Your task to perform on an android device: turn notification dots on Image 0: 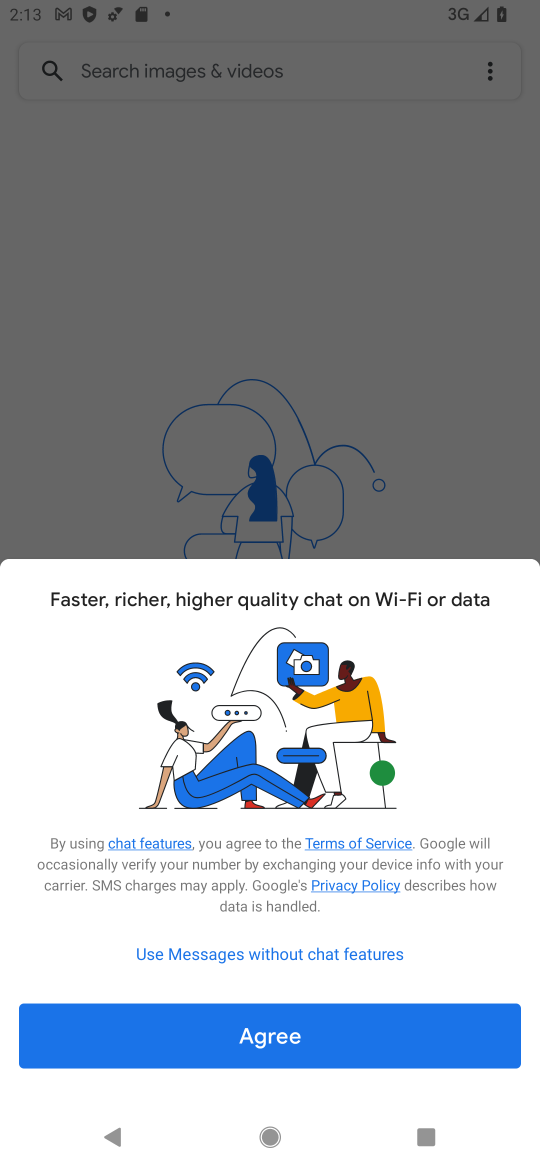
Step 0: press home button
Your task to perform on an android device: turn notification dots on Image 1: 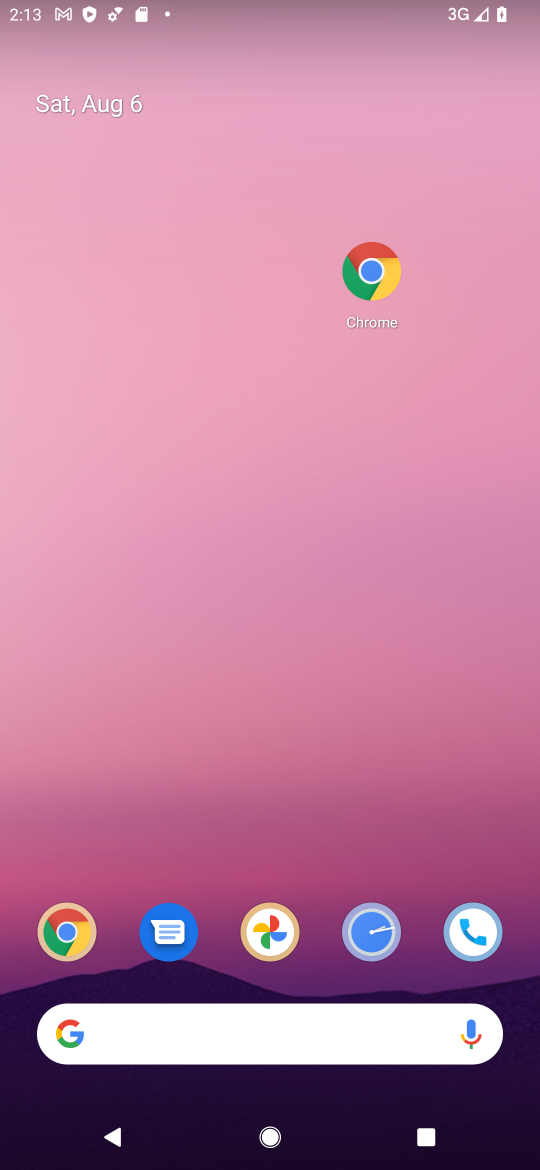
Step 1: drag from (285, 944) to (293, 78)
Your task to perform on an android device: turn notification dots on Image 2: 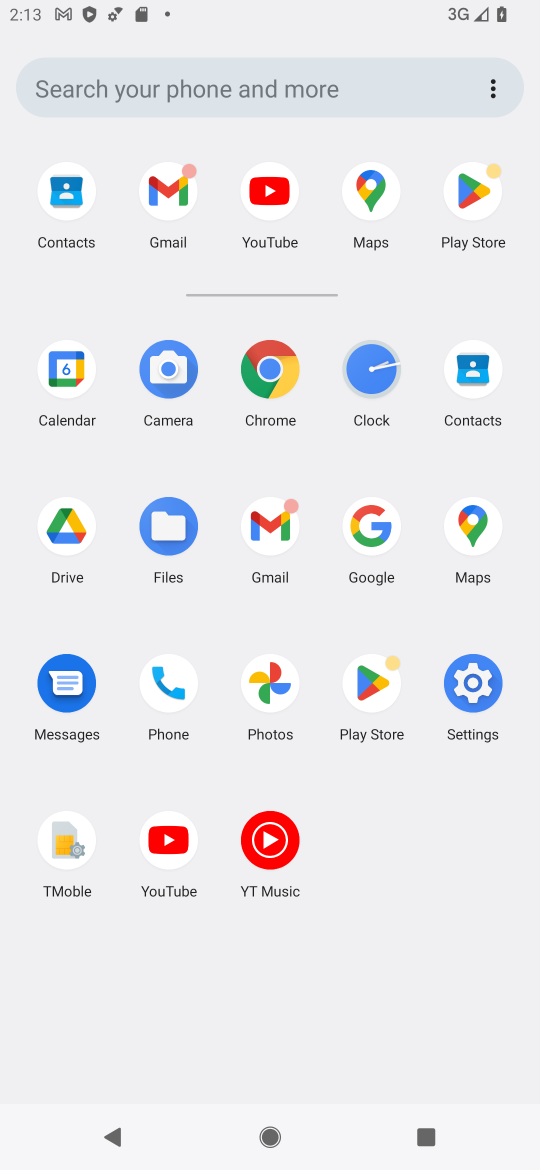
Step 2: click (478, 679)
Your task to perform on an android device: turn notification dots on Image 3: 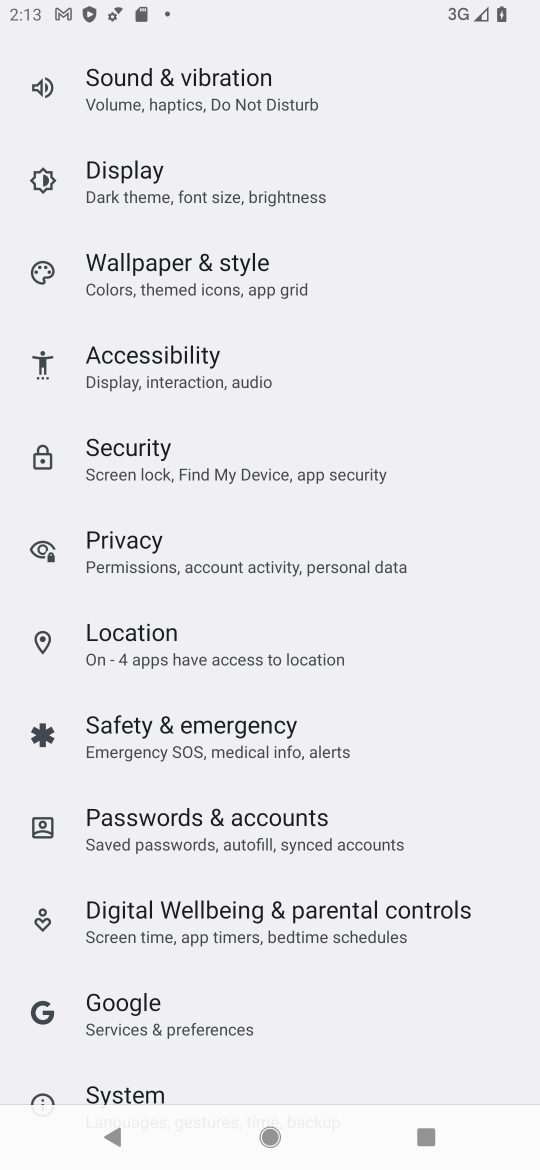
Step 3: drag from (334, 328) to (340, 771)
Your task to perform on an android device: turn notification dots on Image 4: 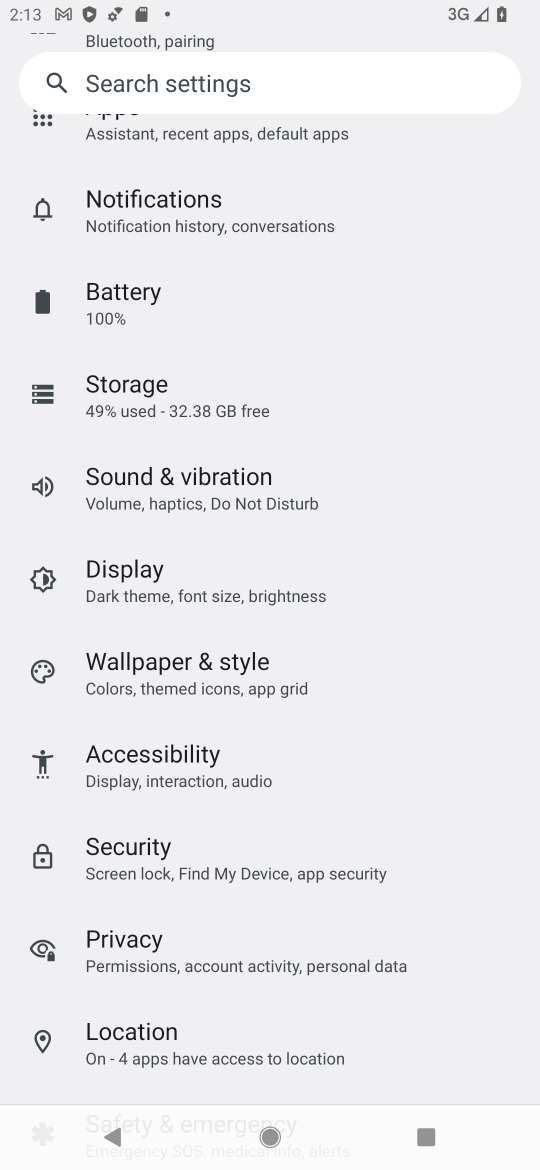
Step 4: click (128, 200)
Your task to perform on an android device: turn notification dots on Image 5: 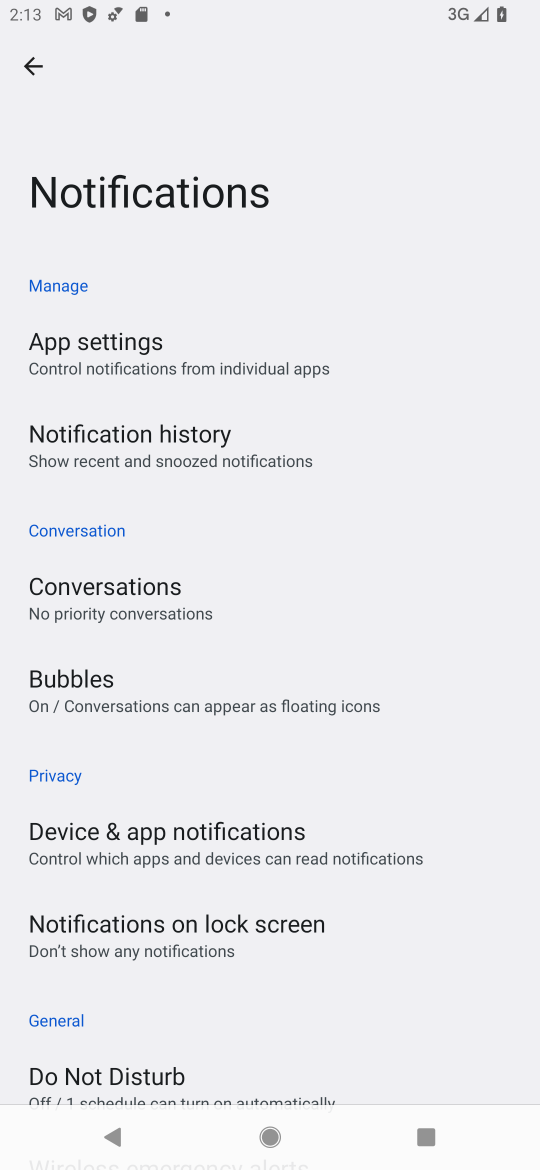
Step 5: task complete